Your task to perform on an android device: open app "Pandora - Music & Podcasts" Image 0: 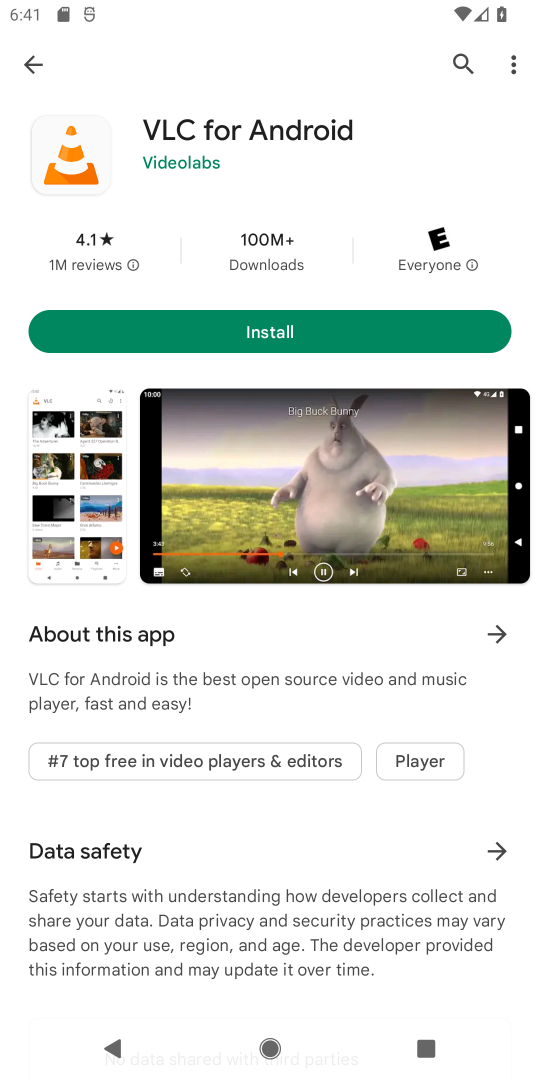
Step 0: click (469, 59)
Your task to perform on an android device: open app "Pandora - Music & Podcasts" Image 1: 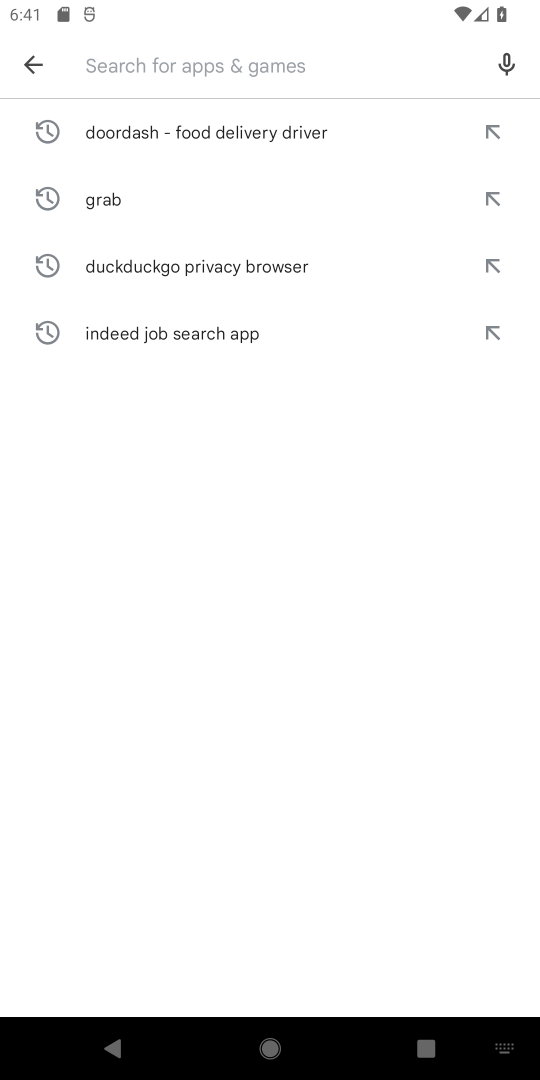
Step 1: type "Pandora - Music & Podcasts"
Your task to perform on an android device: open app "Pandora - Music & Podcasts" Image 2: 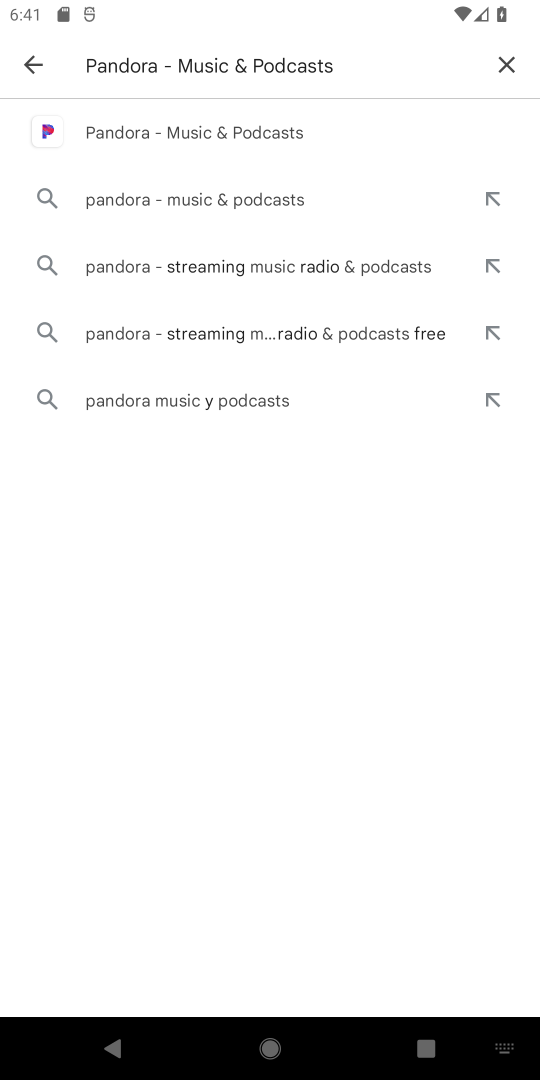
Step 2: click (156, 141)
Your task to perform on an android device: open app "Pandora - Music & Podcasts" Image 3: 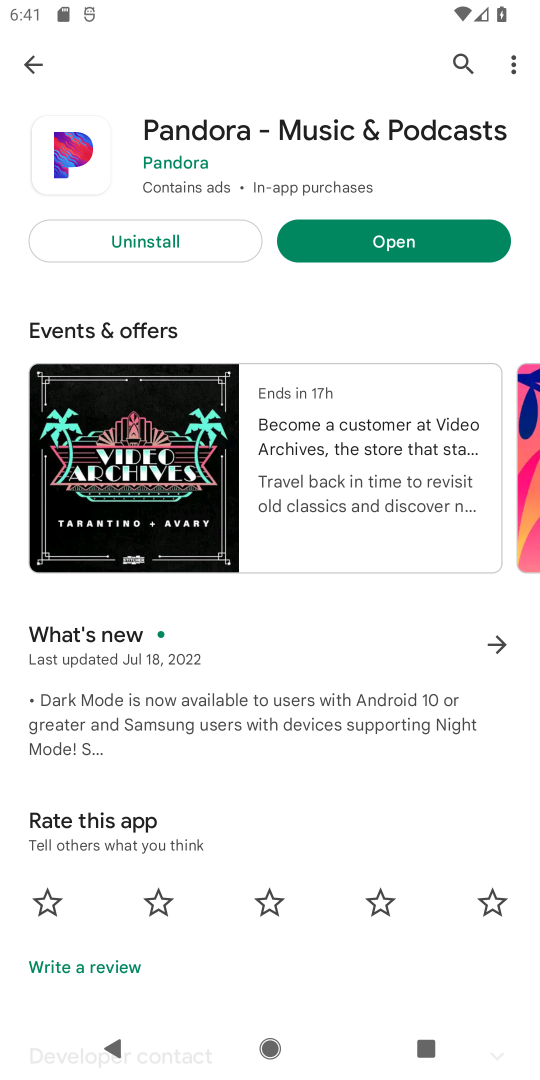
Step 3: click (413, 242)
Your task to perform on an android device: open app "Pandora - Music & Podcasts" Image 4: 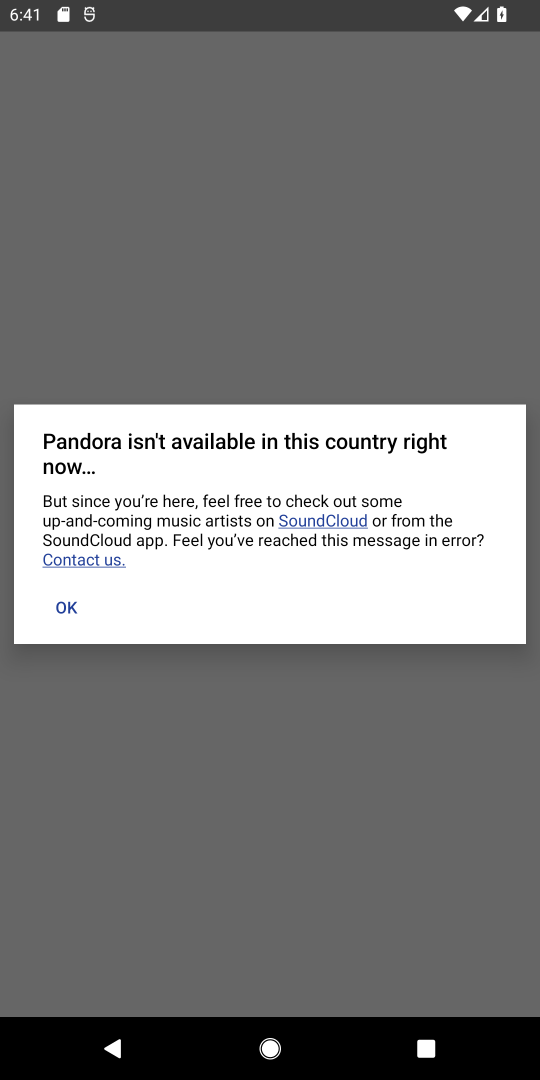
Step 4: task complete